Your task to perform on an android device: turn off improve location accuracy Image 0: 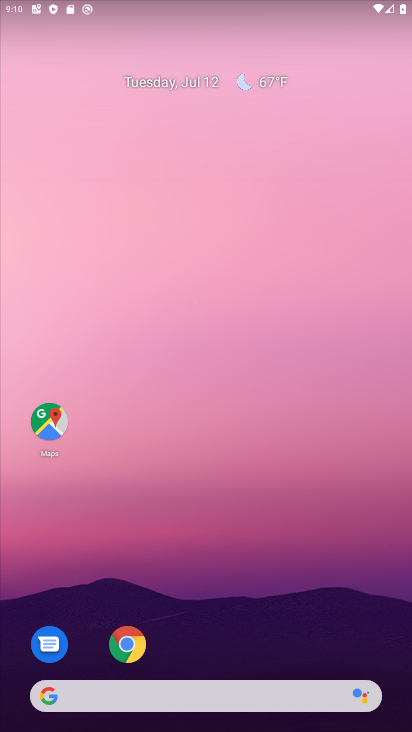
Step 0: drag from (189, 649) to (184, 141)
Your task to perform on an android device: turn off improve location accuracy Image 1: 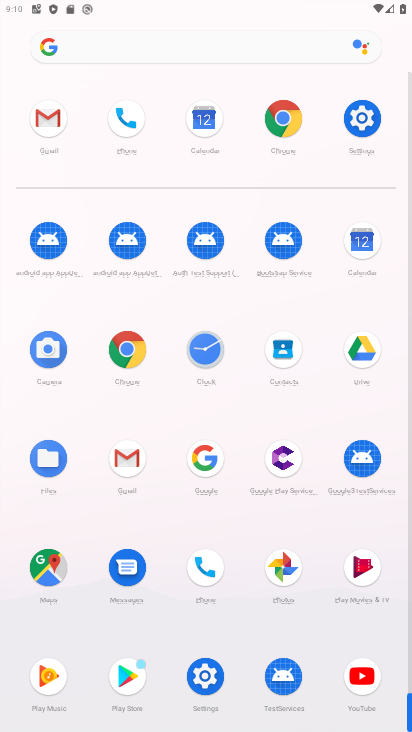
Step 1: click (363, 101)
Your task to perform on an android device: turn off improve location accuracy Image 2: 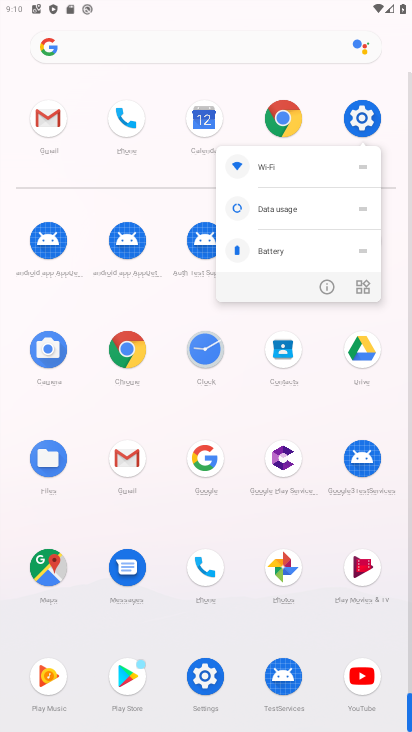
Step 2: click (328, 285)
Your task to perform on an android device: turn off improve location accuracy Image 3: 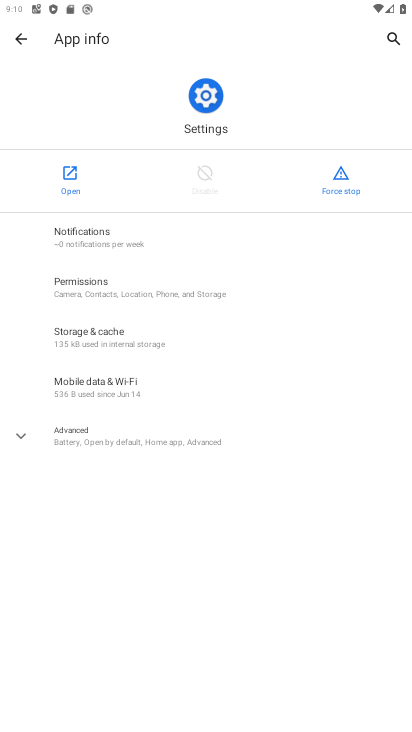
Step 3: click (68, 179)
Your task to perform on an android device: turn off improve location accuracy Image 4: 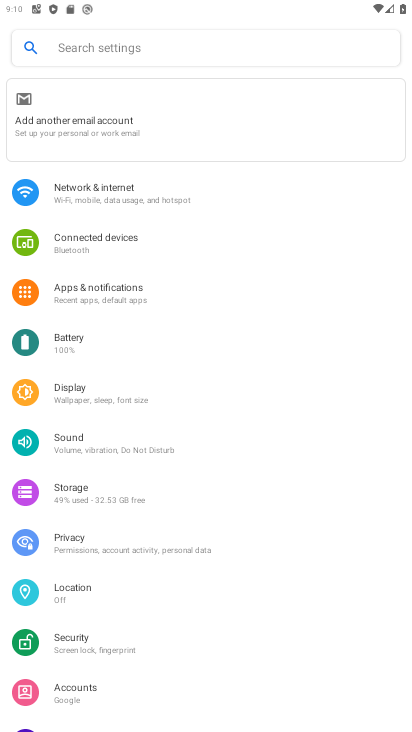
Step 4: drag from (182, 587) to (245, 236)
Your task to perform on an android device: turn off improve location accuracy Image 5: 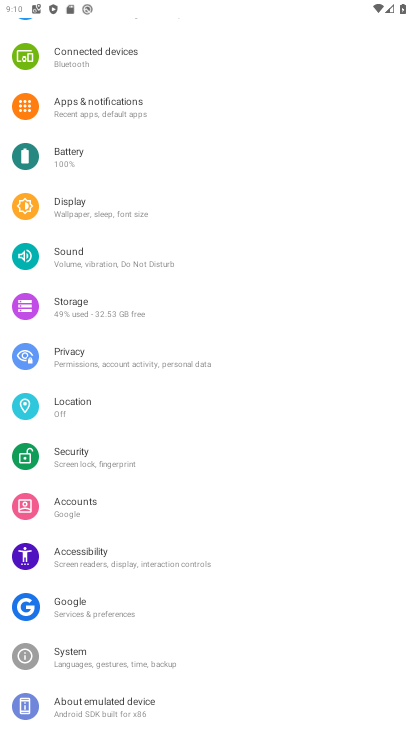
Step 5: click (85, 408)
Your task to perform on an android device: turn off improve location accuracy Image 6: 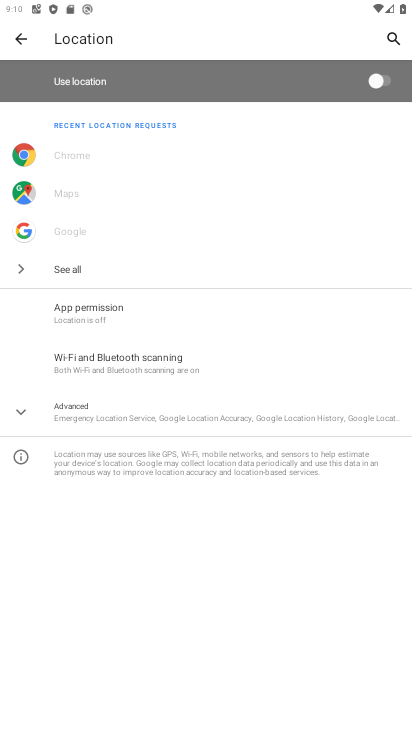
Step 6: click (110, 405)
Your task to perform on an android device: turn off improve location accuracy Image 7: 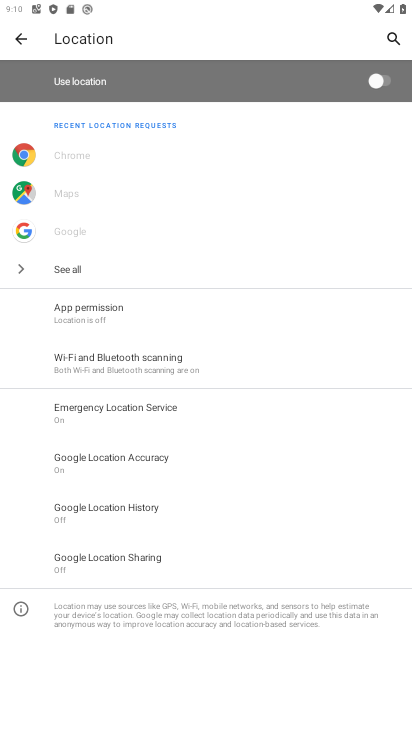
Step 7: drag from (167, 519) to (207, 308)
Your task to perform on an android device: turn off improve location accuracy Image 8: 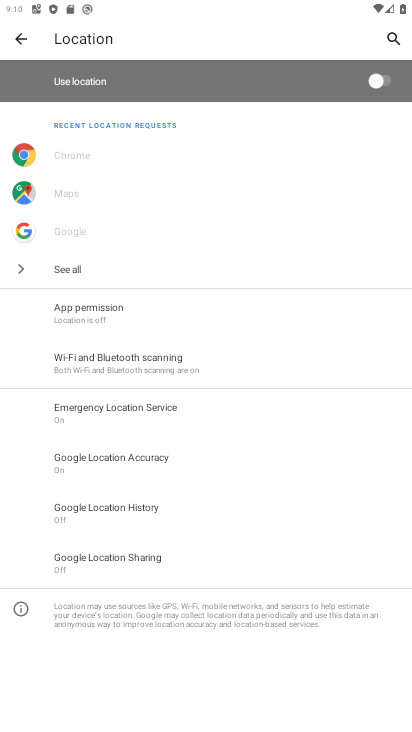
Step 8: click (153, 459)
Your task to perform on an android device: turn off improve location accuracy Image 9: 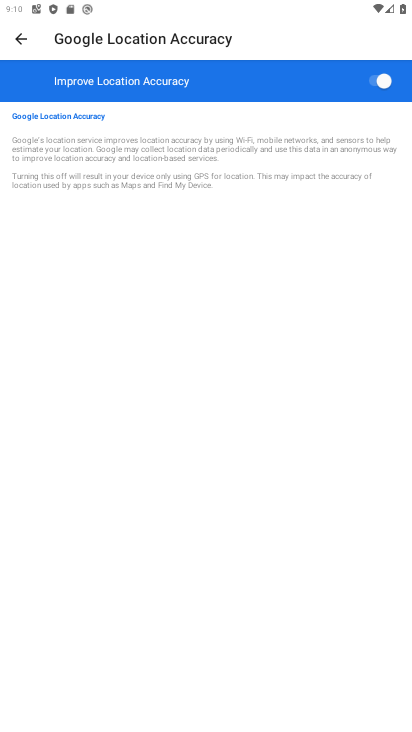
Step 9: drag from (191, 614) to (201, 364)
Your task to perform on an android device: turn off improve location accuracy Image 10: 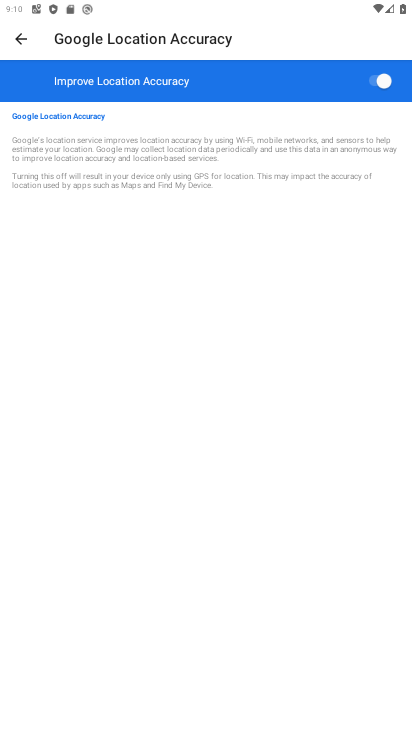
Step 10: click (373, 79)
Your task to perform on an android device: turn off improve location accuracy Image 11: 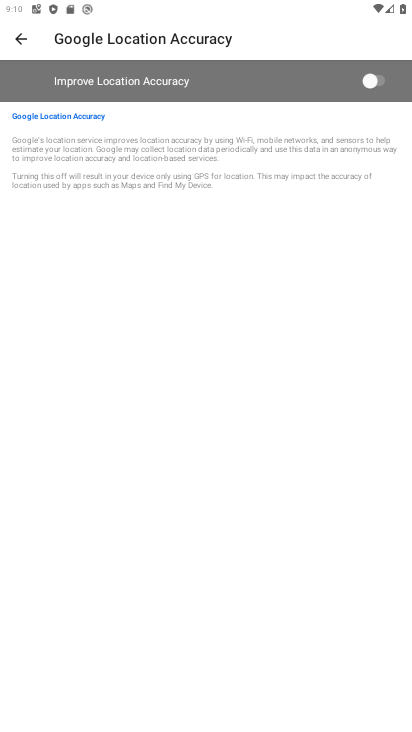
Step 11: task complete